Your task to perform on an android device: Open Youtube and go to "Your channel" Image 0: 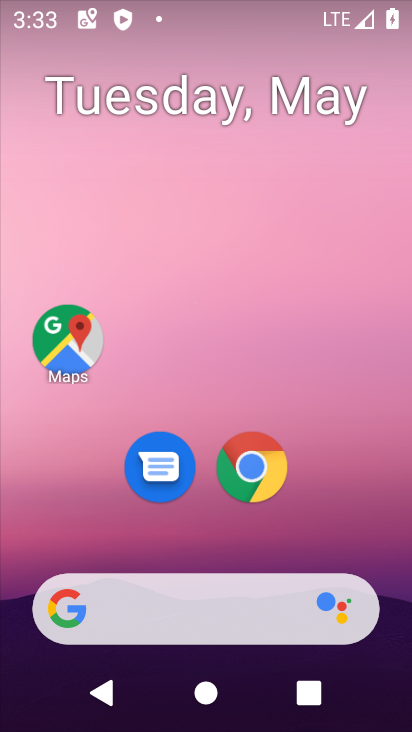
Step 0: drag from (377, 540) to (310, 63)
Your task to perform on an android device: Open Youtube and go to "Your channel" Image 1: 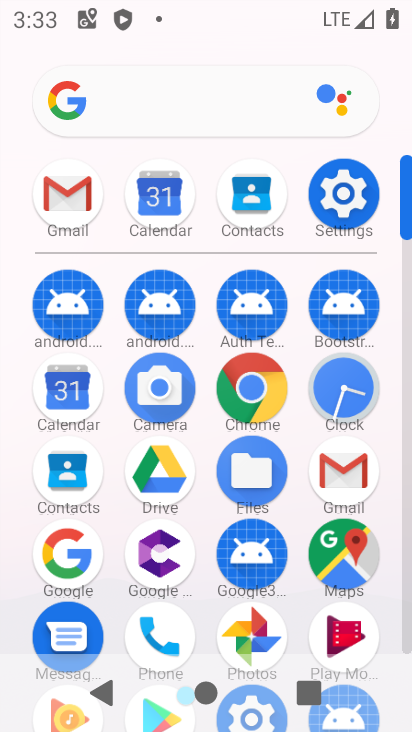
Step 1: drag from (199, 599) to (179, 201)
Your task to perform on an android device: Open Youtube and go to "Your channel" Image 2: 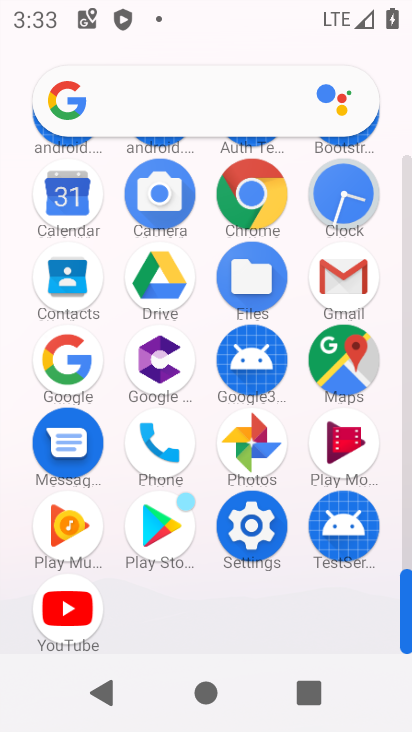
Step 2: click (76, 619)
Your task to perform on an android device: Open Youtube and go to "Your channel" Image 3: 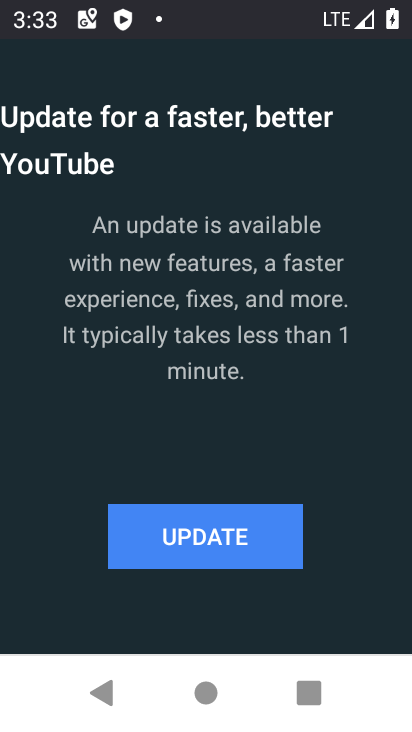
Step 3: click (236, 536)
Your task to perform on an android device: Open Youtube and go to "Your channel" Image 4: 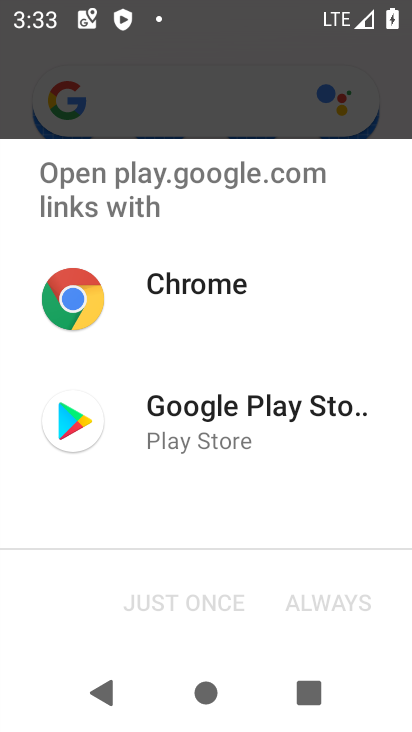
Step 4: click (145, 426)
Your task to perform on an android device: Open Youtube and go to "Your channel" Image 5: 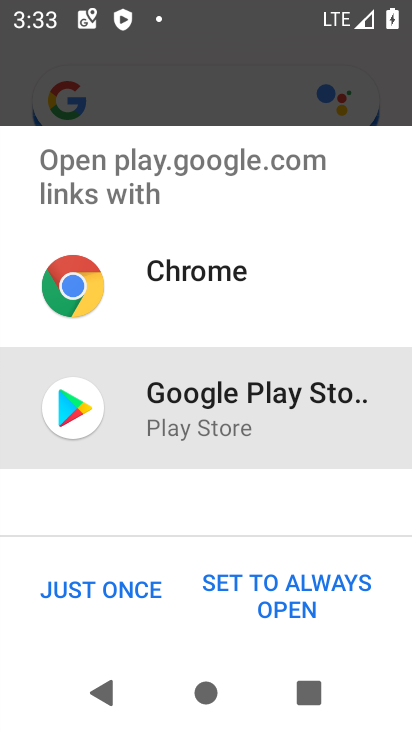
Step 5: click (116, 585)
Your task to perform on an android device: Open Youtube and go to "Your channel" Image 6: 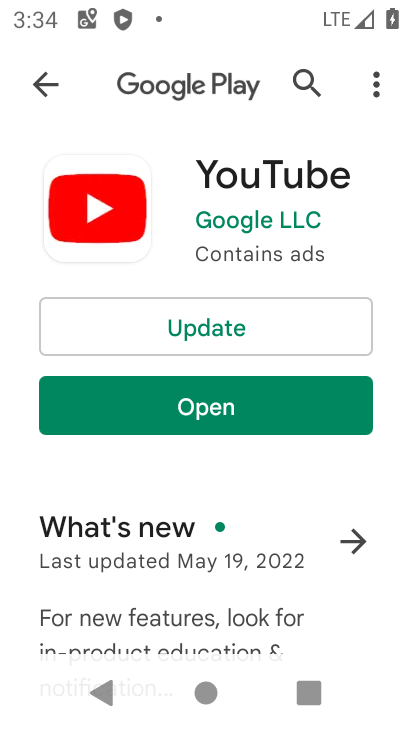
Step 6: click (179, 334)
Your task to perform on an android device: Open Youtube and go to "Your channel" Image 7: 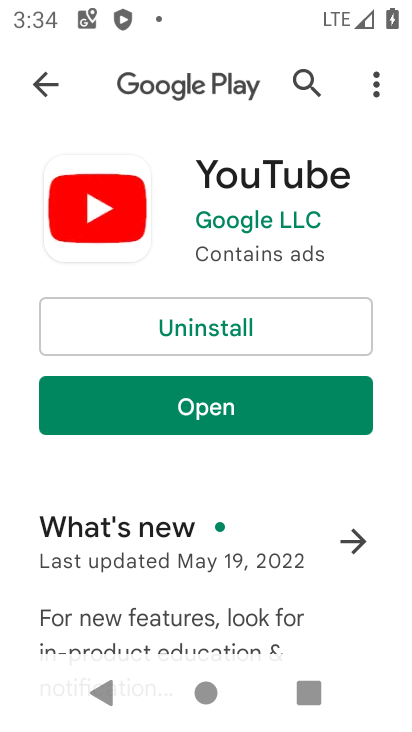
Step 7: click (195, 414)
Your task to perform on an android device: Open Youtube and go to "Your channel" Image 8: 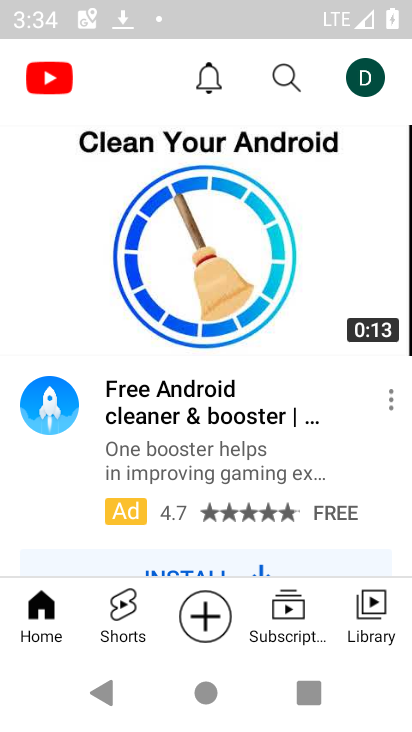
Step 8: click (368, 65)
Your task to perform on an android device: Open Youtube and go to "Your channel" Image 9: 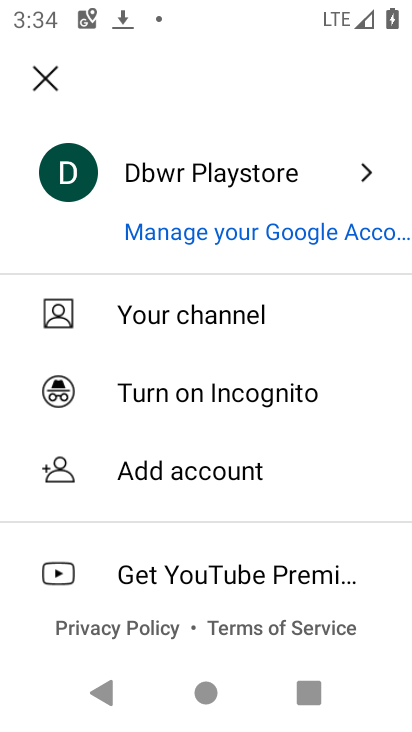
Step 9: click (143, 304)
Your task to perform on an android device: Open Youtube and go to "Your channel" Image 10: 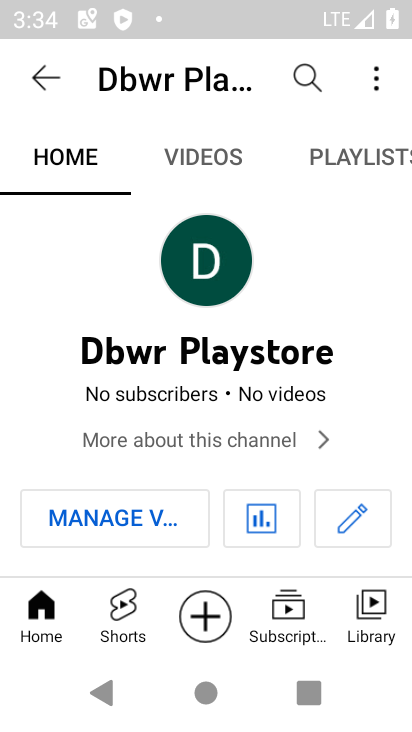
Step 10: task complete